Your task to perform on an android device: Is it going to rain this weekend? Image 0: 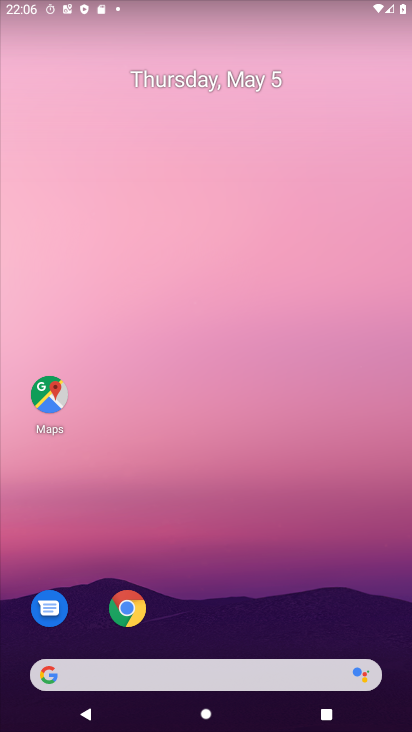
Step 0: drag from (302, 674) to (276, 15)
Your task to perform on an android device: Is it going to rain this weekend? Image 1: 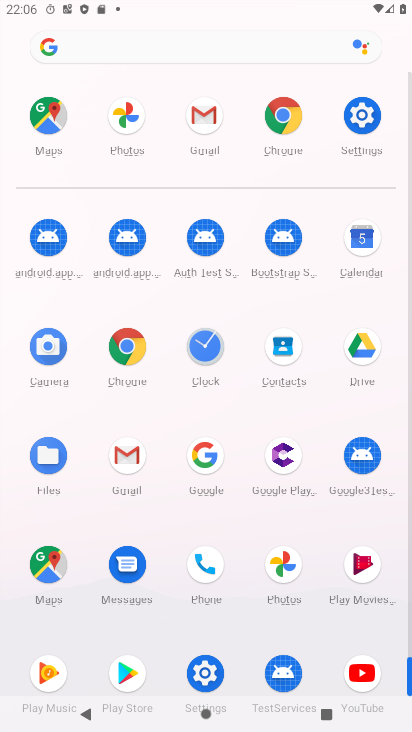
Step 1: click (121, 335)
Your task to perform on an android device: Is it going to rain this weekend? Image 2: 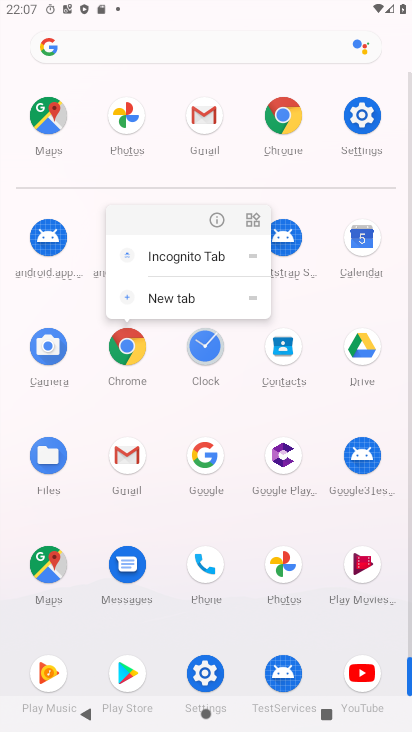
Step 2: click (133, 364)
Your task to perform on an android device: Is it going to rain this weekend? Image 3: 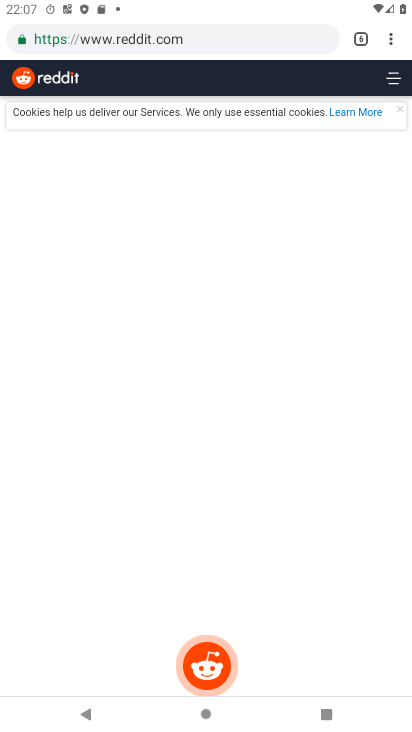
Step 3: click (213, 41)
Your task to perform on an android device: Is it going to rain this weekend? Image 4: 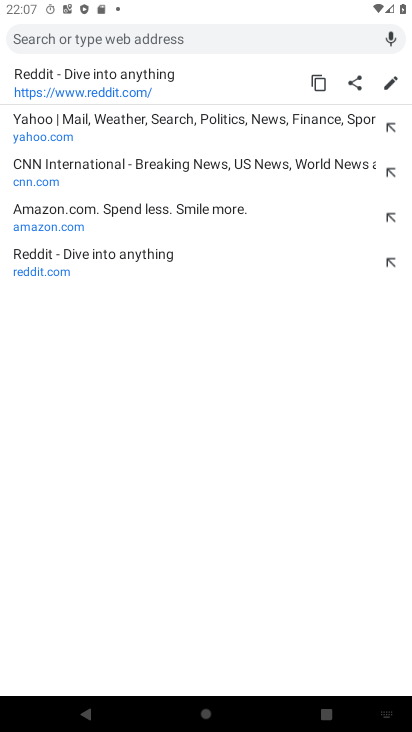
Step 4: type "rain this weekend"
Your task to perform on an android device: Is it going to rain this weekend? Image 5: 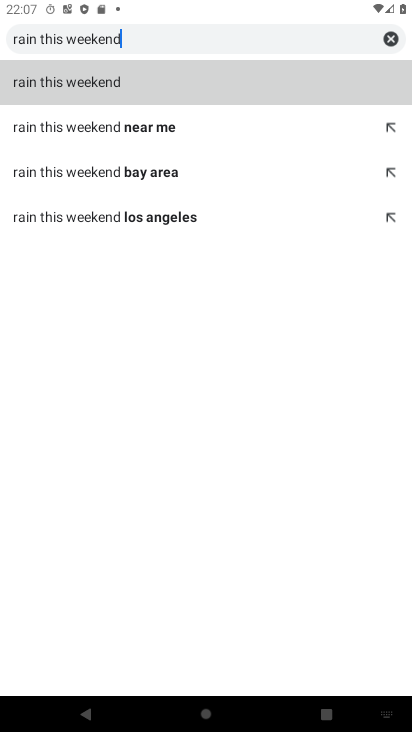
Step 5: click (174, 84)
Your task to perform on an android device: Is it going to rain this weekend? Image 6: 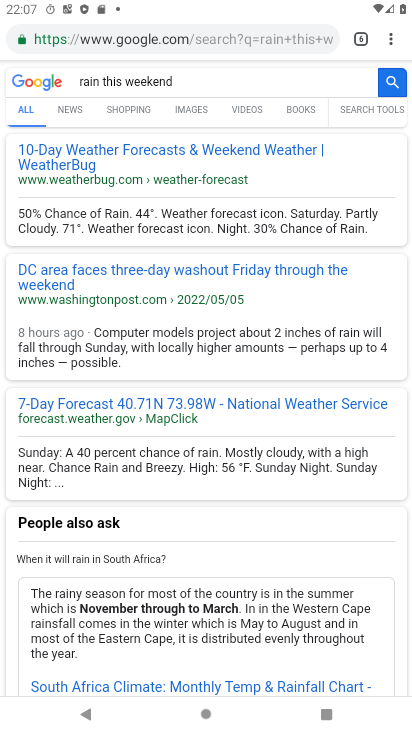
Step 6: task complete